Your task to perform on an android device: turn notification dots on Image 0: 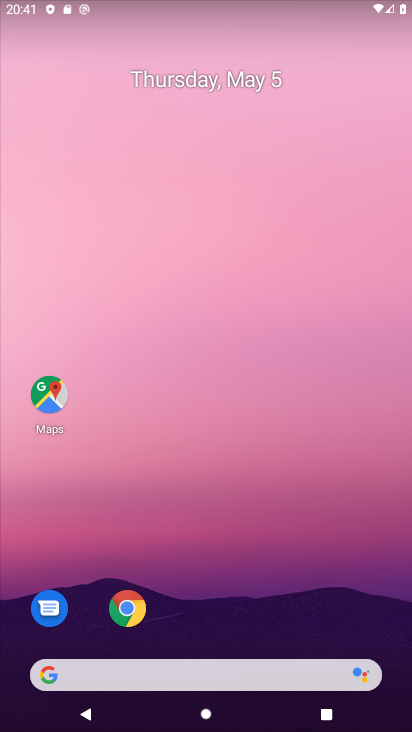
Step 0: drag from (234, 653) to (239, 60)
Your task to perform on an android device: turn notification dots on Image 1: 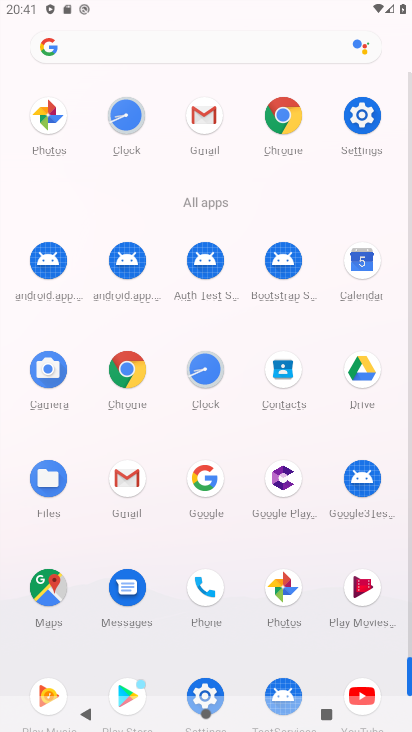
Step 1: drag from (230, 663) to (218, 196)
Your task to perform on an android device: turn notification dots on Image 2: 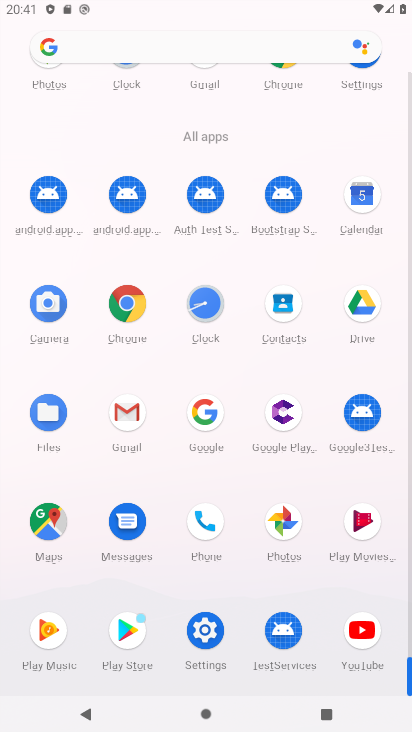
Step 2: click (205, 635)
Your task to perform on an android device: turn notification dots on Image 3: 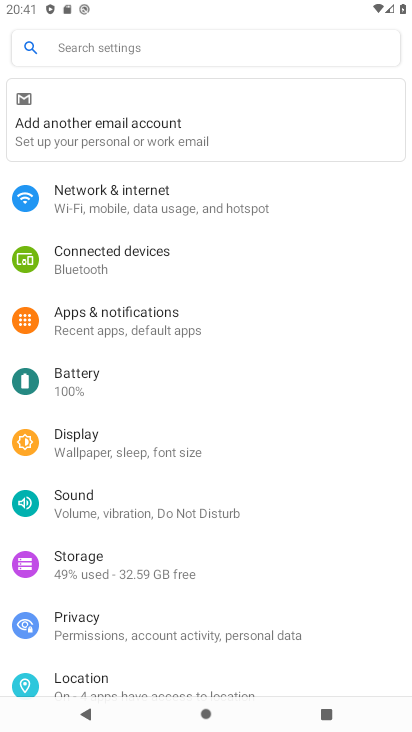
Step 3: click (164, 325)
Your task to perform on an android device: turn notification dots on Image 4: 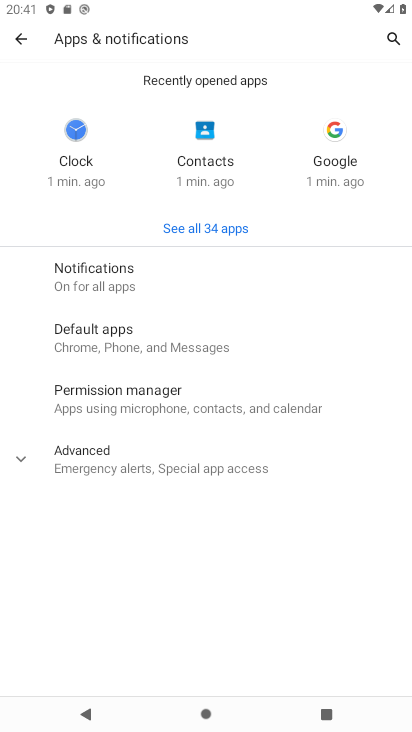
Step 4: click (153, 280)
Your task to perform on an android device: turn notification dots on Image 5: 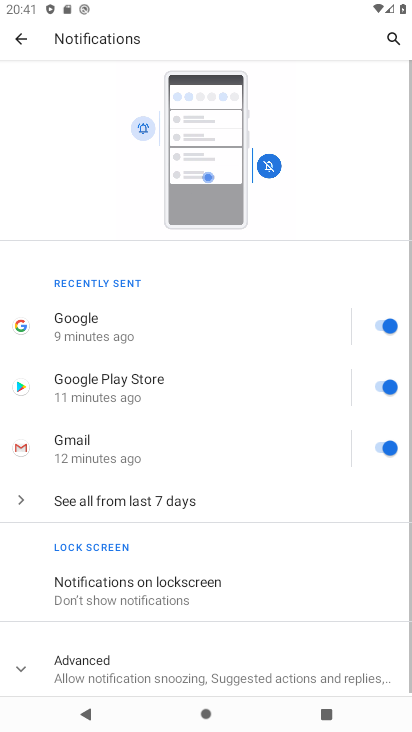
Step 5: drag from (257, 659) to (209, 249)
Your task to perform on an android device: turn notification dots on Image 6: 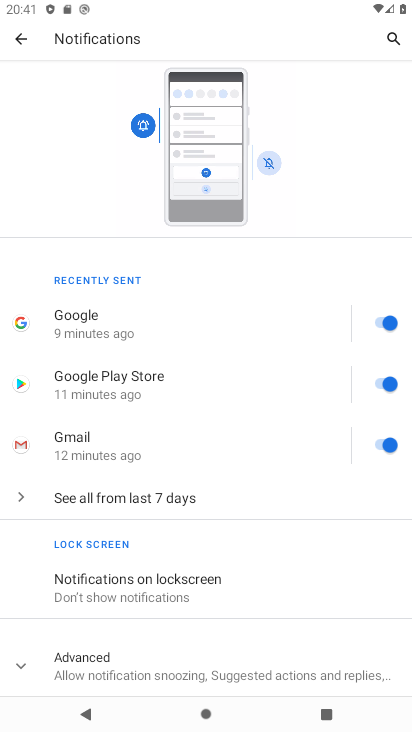
Step 6: click (224, 669)
Your task to perform on an android device: turn notification dots on Image 7: 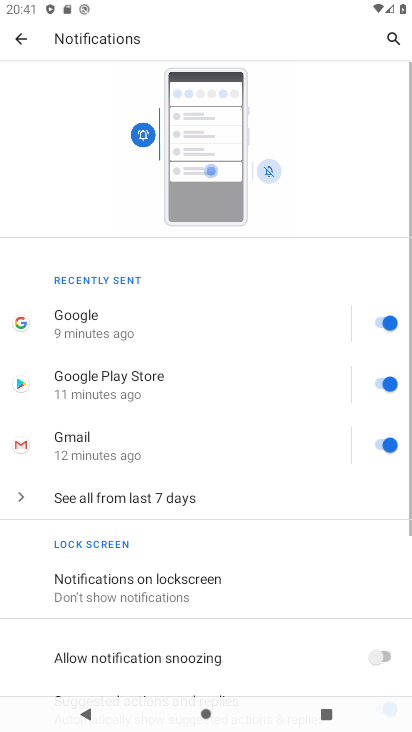
Step 7: task complete